Your task to perform on an android device: Do I have any events today? Image 0: 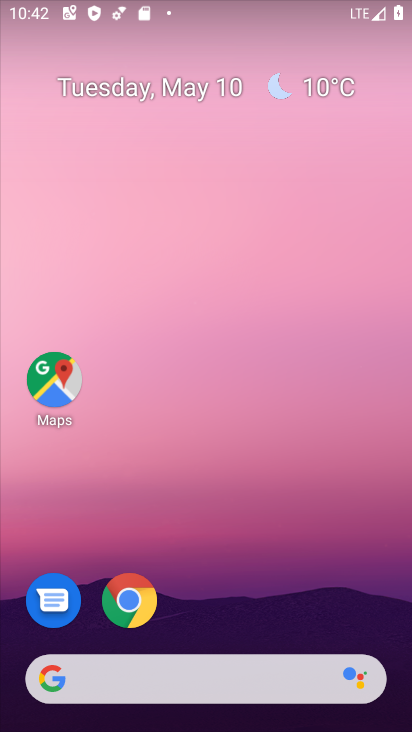
Step 0: drag from (252, 570) to (170, 96)
Your task to perform on an android device: Do I have any events today? Image 1: 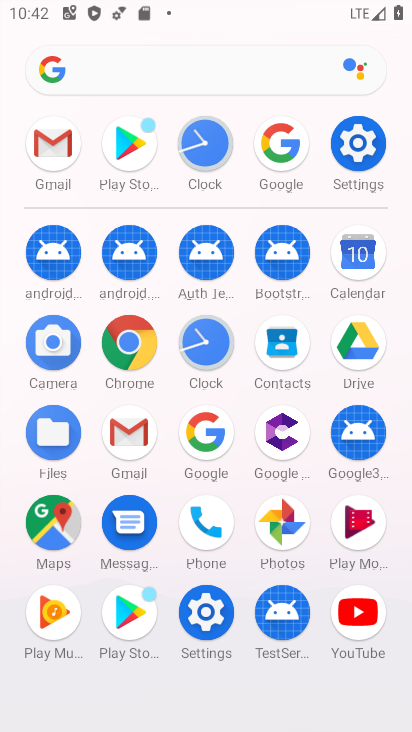
Step 1: click (360, 259)
Your task to perform on an android device: Do I have any events today? Image 2: 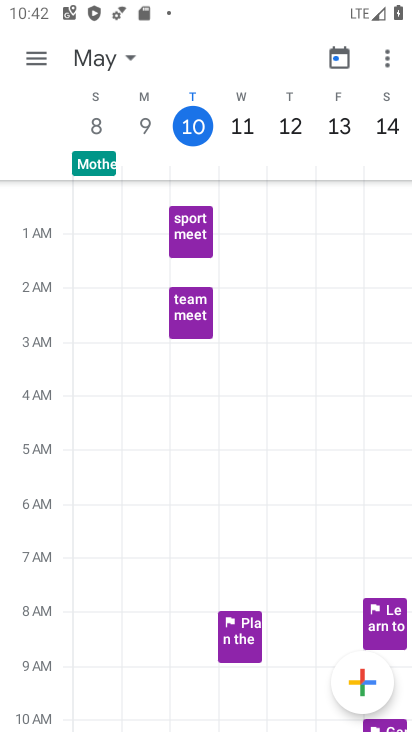
Step 2: task complete